Your task to perform on an android device: Open Google Chrome Image 0: 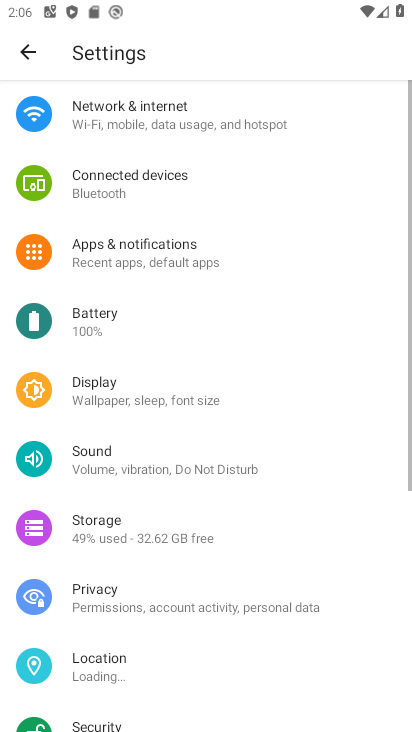
Step 0: press home button
Your task to perform on an android device: Open Google Chrome Image 1: 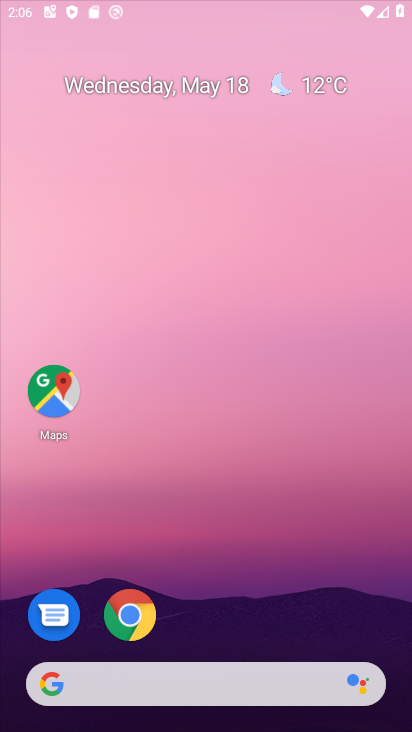
Step 1: drag from (362, 615) to (241, 60)
Your task to perform on an android device: Open Google Chrome Image 2: 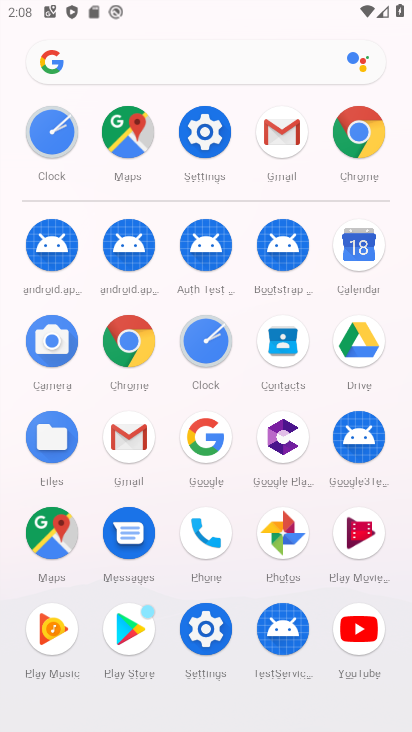
Step 2: click (138, 338)
Your task to perform on an android device: Open Google Chrome Image 3: 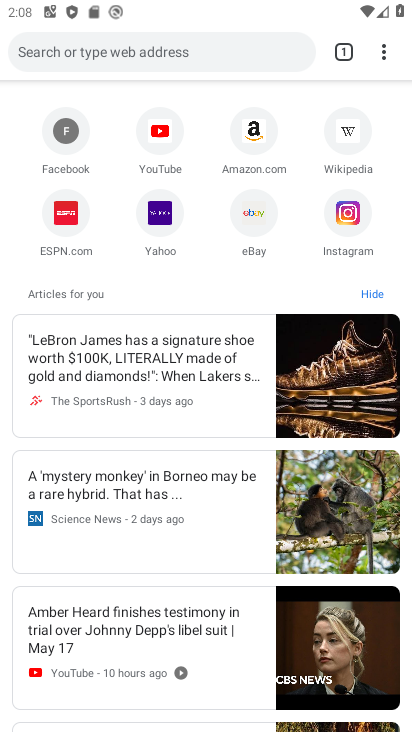
Step 3: task complete